Your task to perform on an android device: Open settings Image 0: 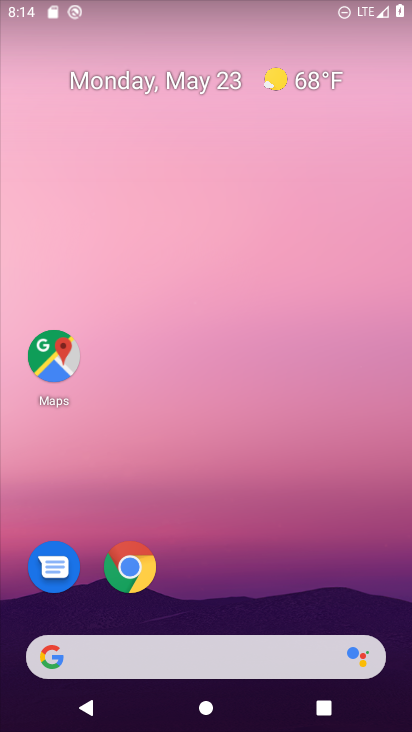
Step 0: drag from (164, 613) to (302, 116)
Your task to perform on an android device: Open settings Image 1: 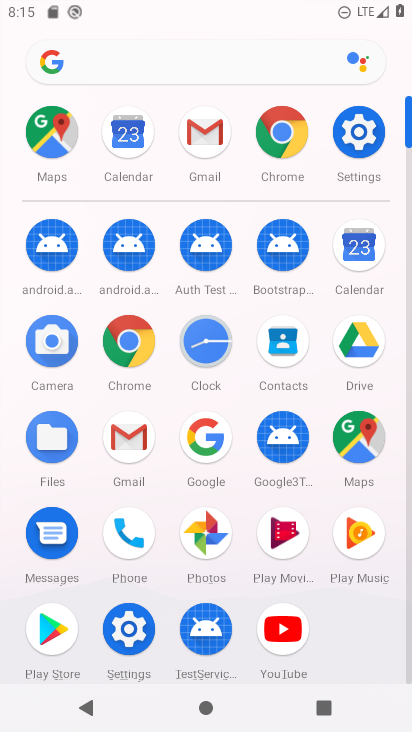
Step 1: click (126, 644)
Your task to perform on an android device: Open settings Image 2: 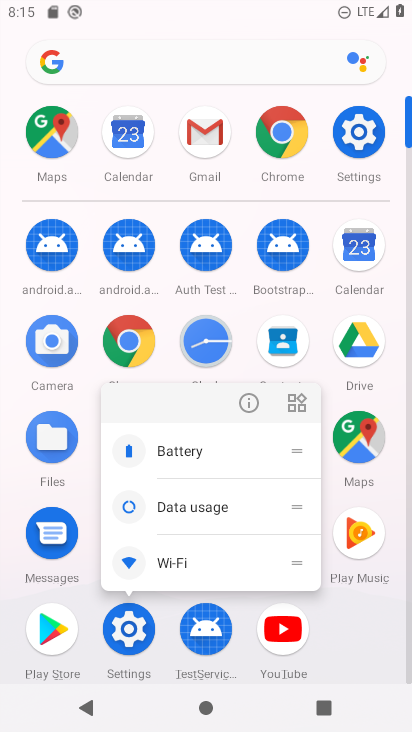
Step 2: click (249, 400)
Your task to perform on an android device: Open settings Image 3: 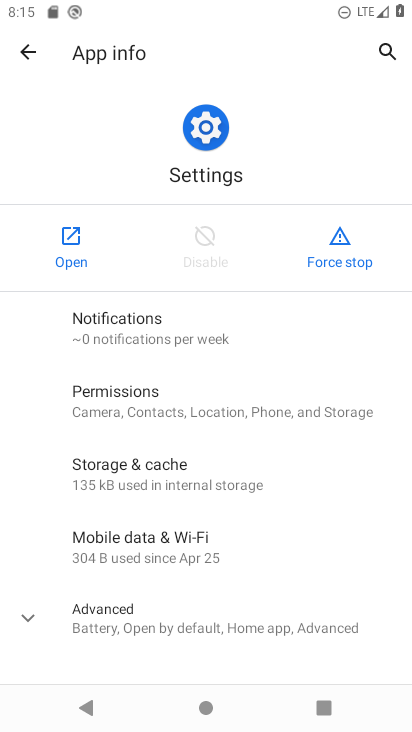
Step 3: task complete